Your task to perform on an android device: What is the recent news? Image 0: 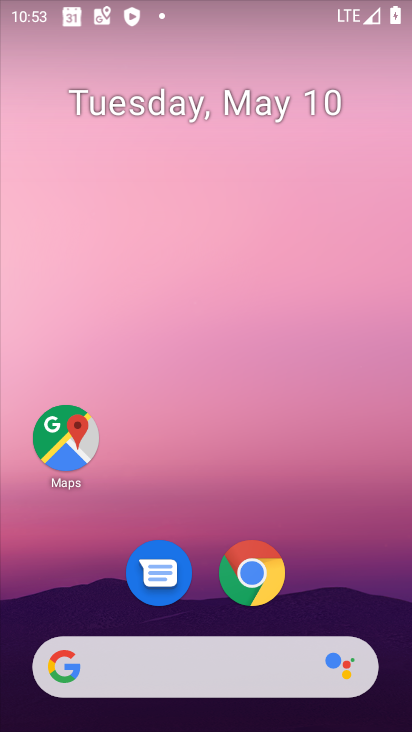
Step 0: drag from (9, 260) to (401, 321)
Your task to perform on an android device: What is the recent news? Image 1: 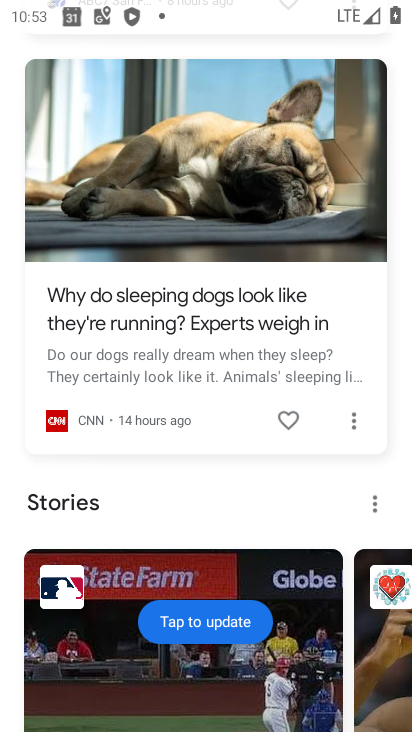
Step 1: task complete